Your task to perform on an android device: Open location settings Image 0: 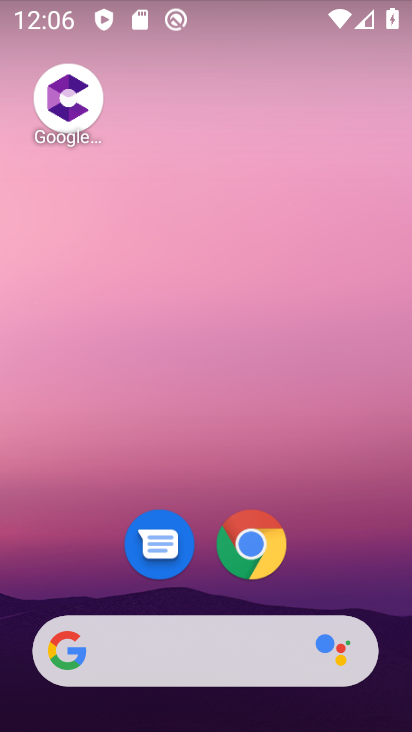
Step 0: drag from (86, 601) to (153, 53)
Your task to perform on an android device: Open location settings Image 1: 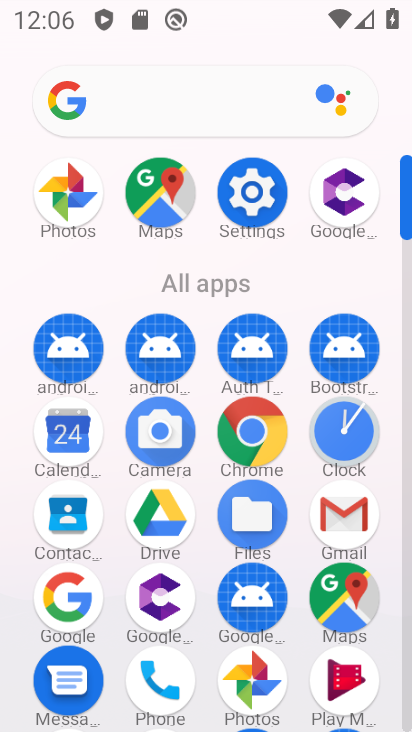
Step 1: drag from (232, 636) to (271, 417)
Your task to perform on an android device: Open location settings Image 2: 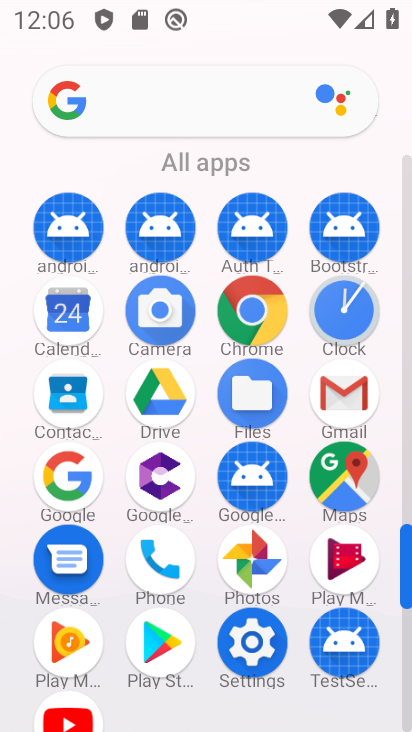
Step 2: click (260, 638)
Your task to perform on an android device: Open location settings Image 3: 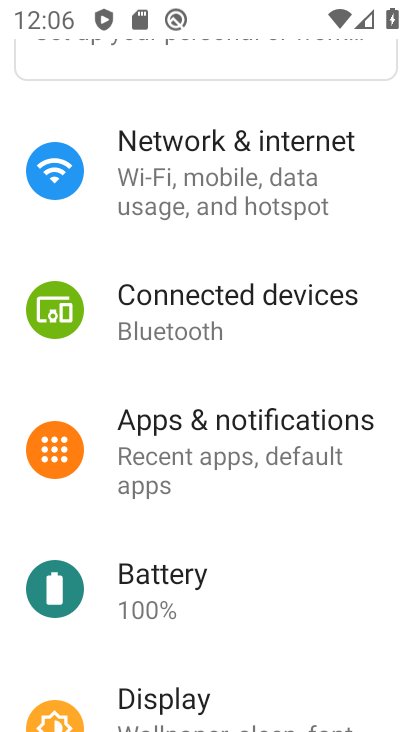
Step 3: drag from (214, 634) to (352, 92)
Your task to perform on an android device: Open location settings Image 4: 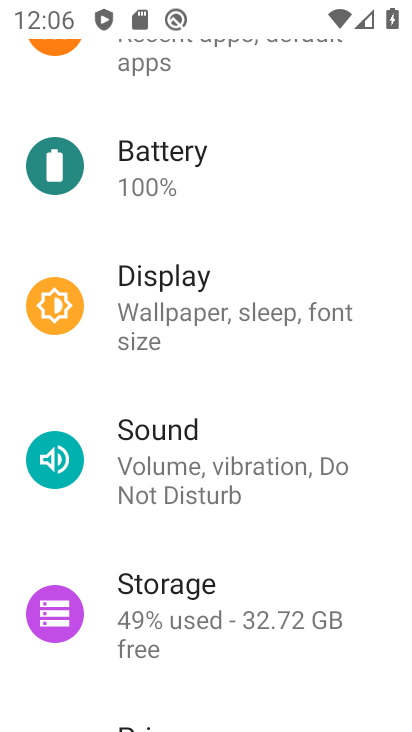
Step 4: drag from (213, 671) to (326, 269)
Your task to perform on an android device: Open location settings Image 5: 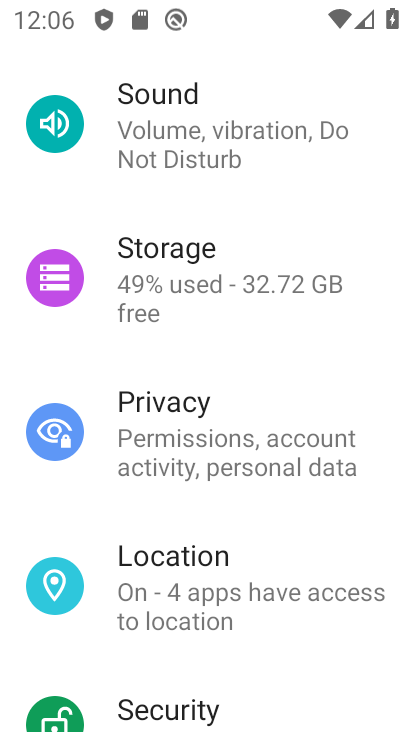
Step 5: click (146, 621)
Your task to perform on an android device: Open location settings Image 6: 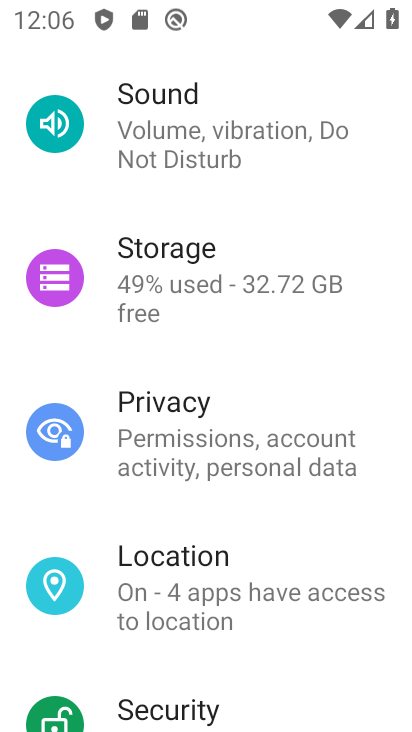
Step 6: click (207, 609)
Your task to perform on an android device: Open location settings Image 7: 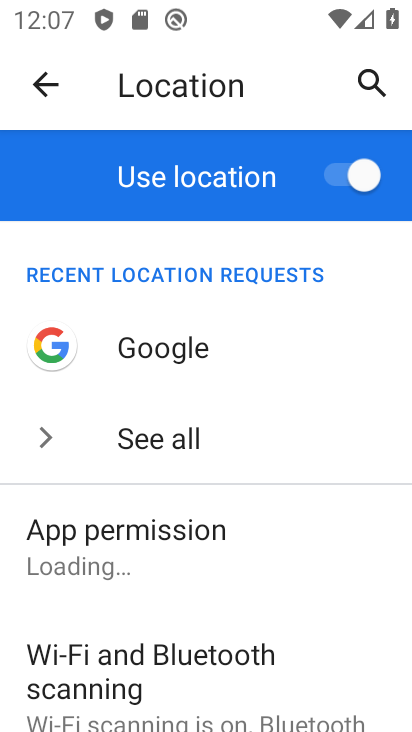
Step 7: task complete